Your task to perform on an android device: clear all cookies in the chrome app Image 0: 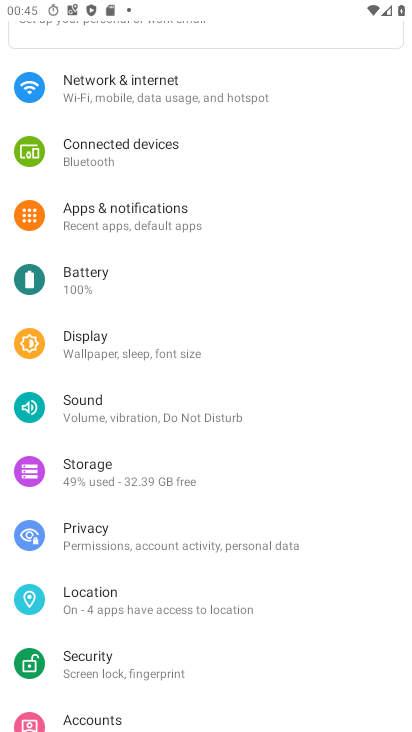
Step 0: press home button
Your task to perform on an android device: clear all cookies in the chrome app Image 1: 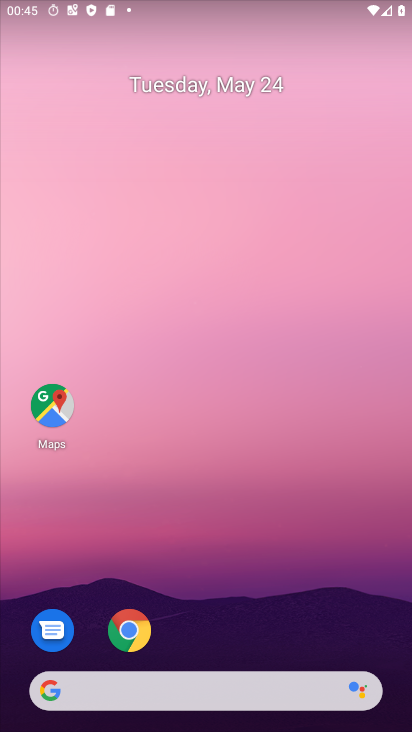
Step 1: click (126, 660)
Your task to perform on an android device: clear all cookies in the chrome app Image 2: 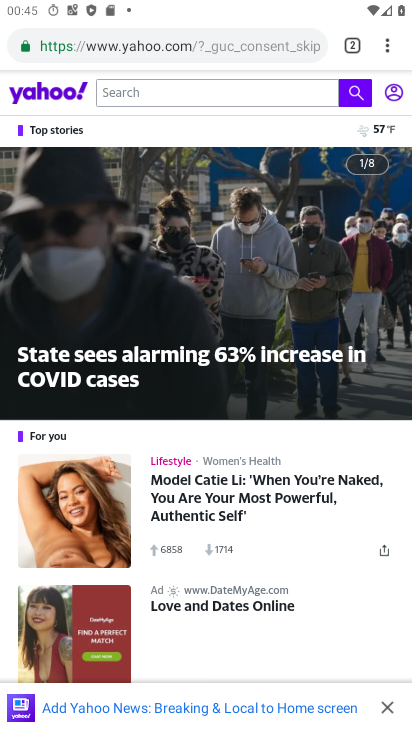
Step 2: click (388, 46)
Your task to perform on an android device: clear all cookies in the chrome app Image 3: 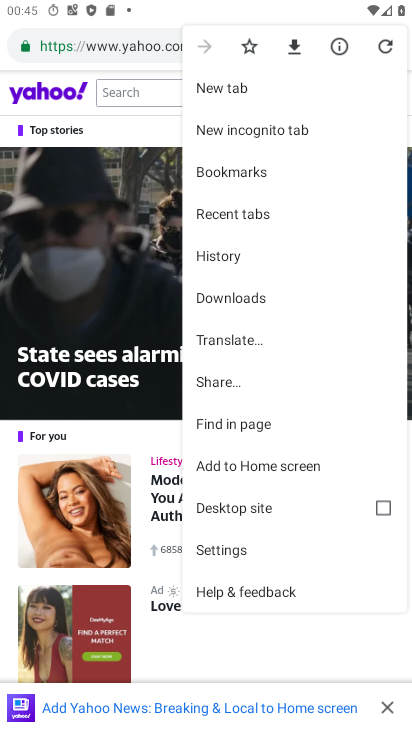
Step 3: click (224, 556)
Your task to perform on an android device: clear all cookies in the chrome app Image 4: 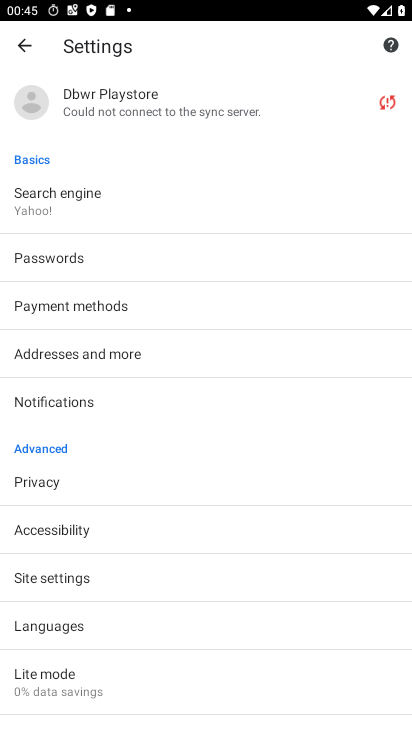
Step 4: click (26, 481)
Your task to perform on an android device: clear all cookies in the chrome app Image 5: 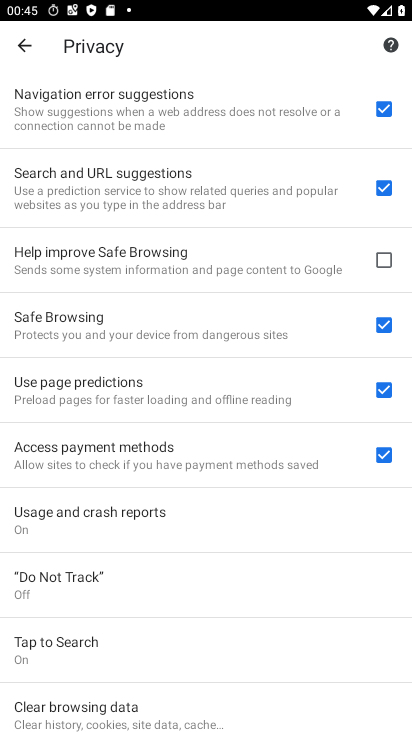
Step 5: drag from (124, 662) to (148, 491)
Your task to perform on an android device: clear all cookies in the chrome app Image 6: 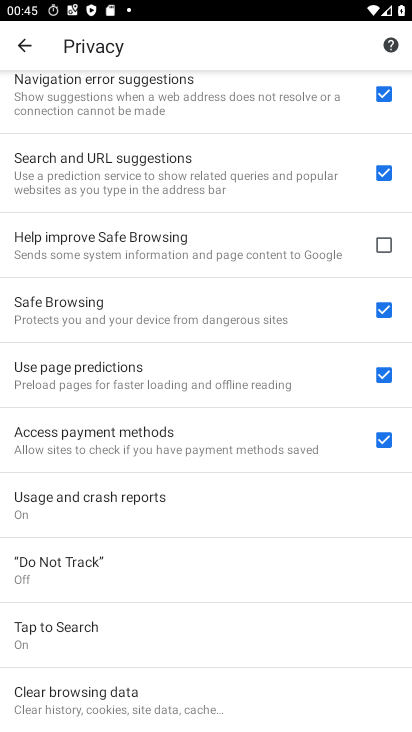
Step 6: click (76, 694)
Your task to perform on an android device: clear all cookies in the chrome app Image 7: 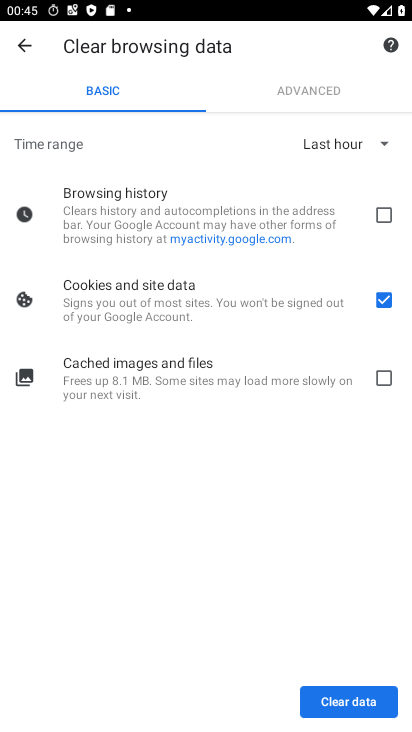
Step 7: click (345, 705)
Your task to perform on an android device: clear all cookies in the chrome app Image 8: 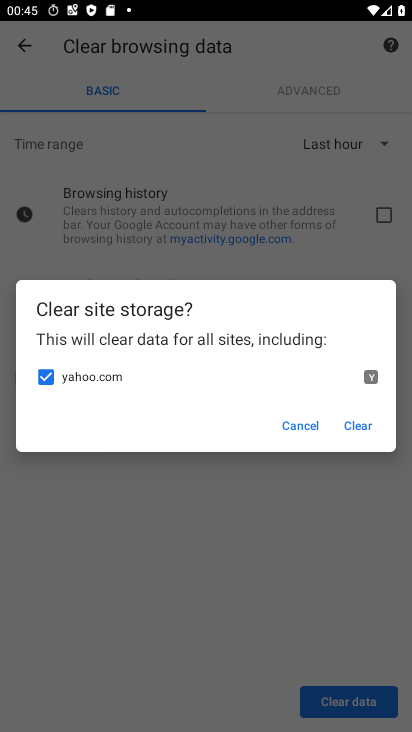
Step 8: click (363, 425)
Your task to perform on an android device: clear all cookies in the chrome app Image 9: 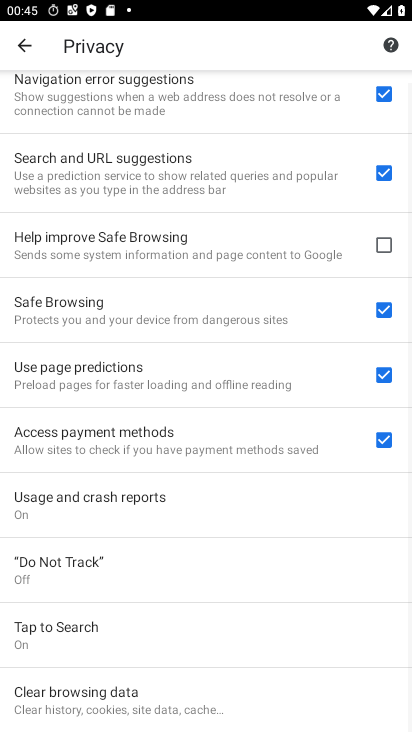
Step 9: task complete